Your task to perform on an android device: open a new tab in the chrome app Image 0: 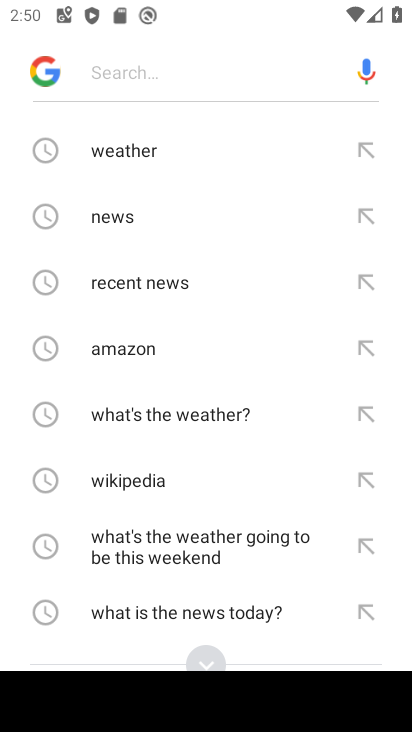
Step 0: press home button
Your task to perform on an android device: open a new tab in the chrome app Image 1: 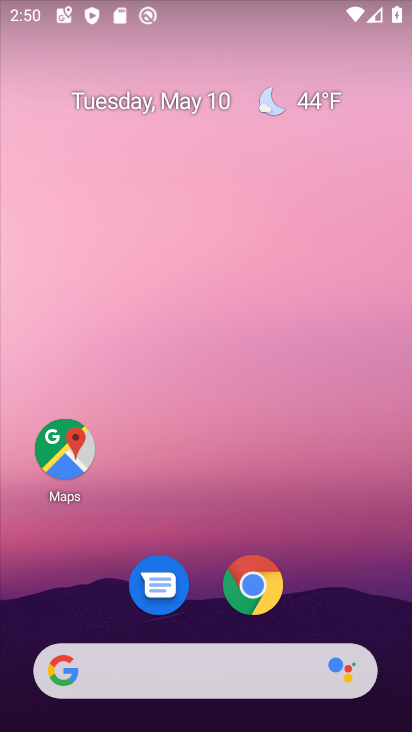
Step 1: click (272, 580)
Your task to perform on an android device: open a new tab in the chrome app Image 2: 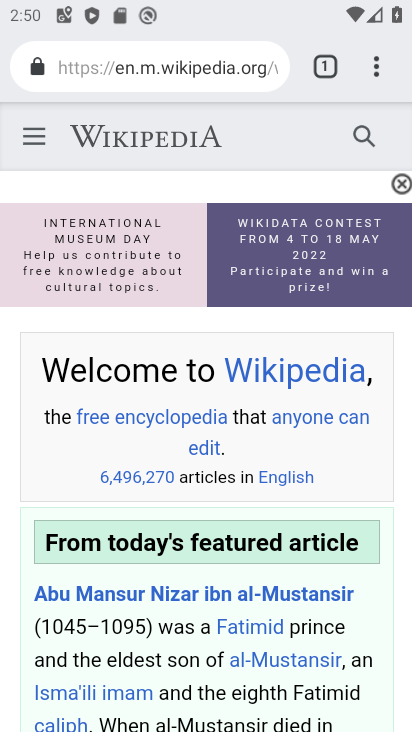
Step 2: click (375, 71)
Your task to perform on an android device: open a new tab in the chrome app Image 3: 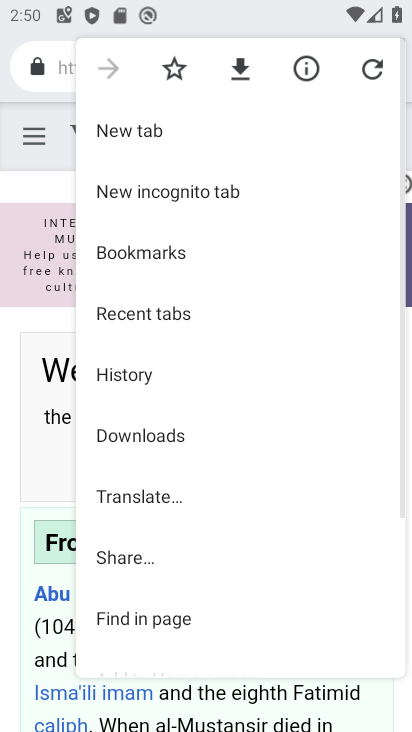
Step 3: click (304, 125)
Your task to perform on an android device: open a new tab in the chrome app Image 4: 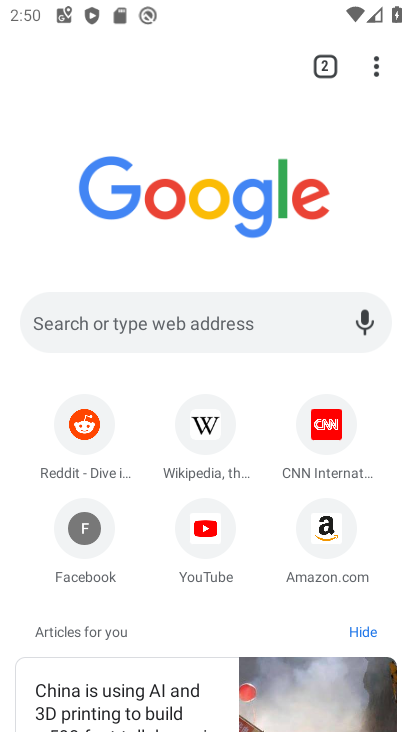
Step 4: task complete